Your task to perform on an android device: turn off wifi Image 0: 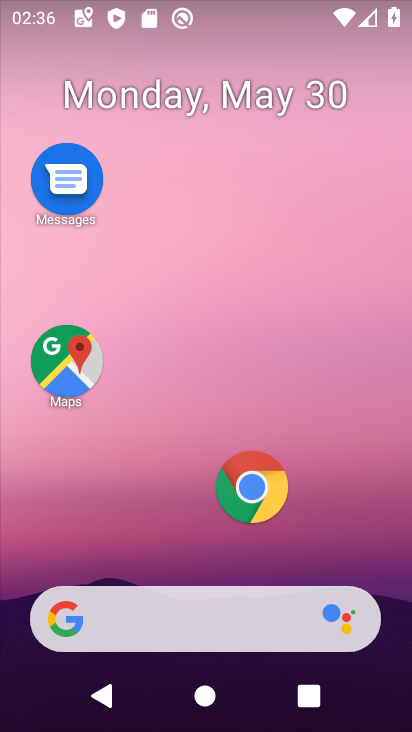
Step 0: drag from (178, 569) to (151, 34)
Your task to perform on an android device: turn off wifi Image 1: 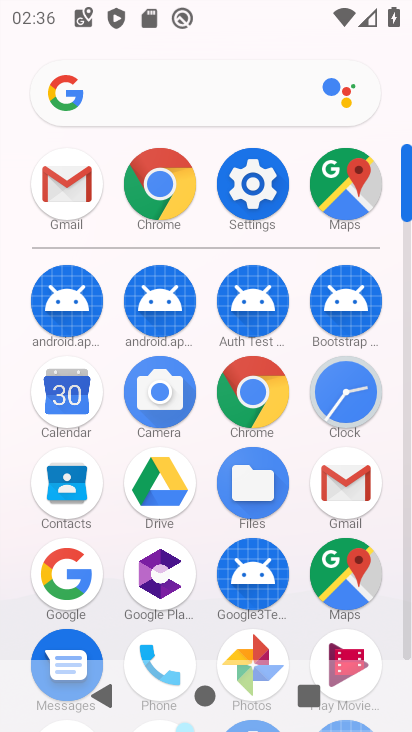
Step 1: click (264, 183)
Your task to perform on an android device: turn off wifi Image 2: 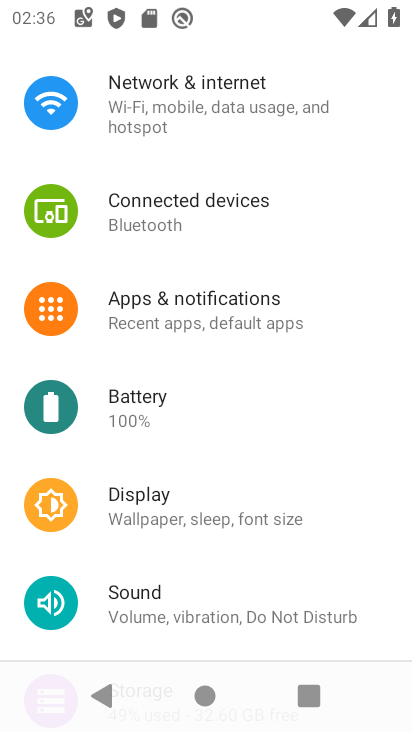
Step 2: click (140, 119)
Your task to perform on an android device: turn off wifi Image 3: 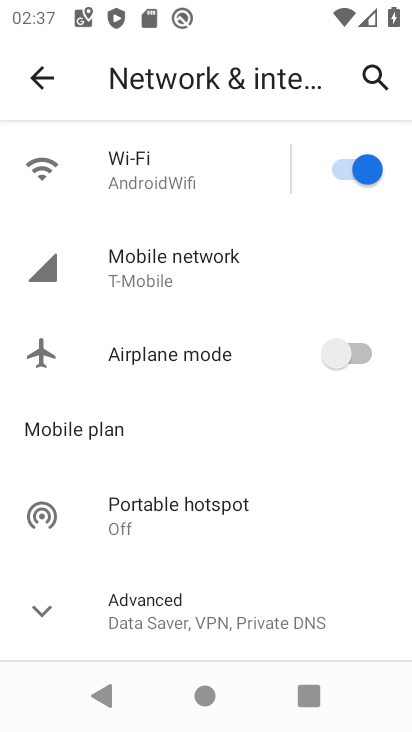
Step 3: click (354, 182)
Your task to perform on an android device: turn off wifi Image 4: 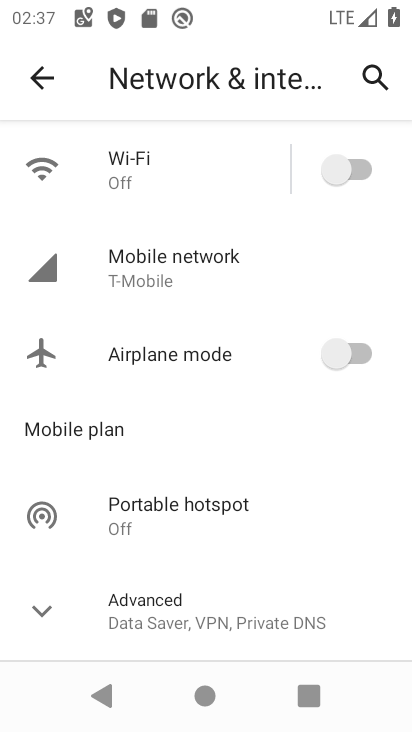
Step 4: task complete